Your task to perform on an android device: set the stopwatch Image 0: 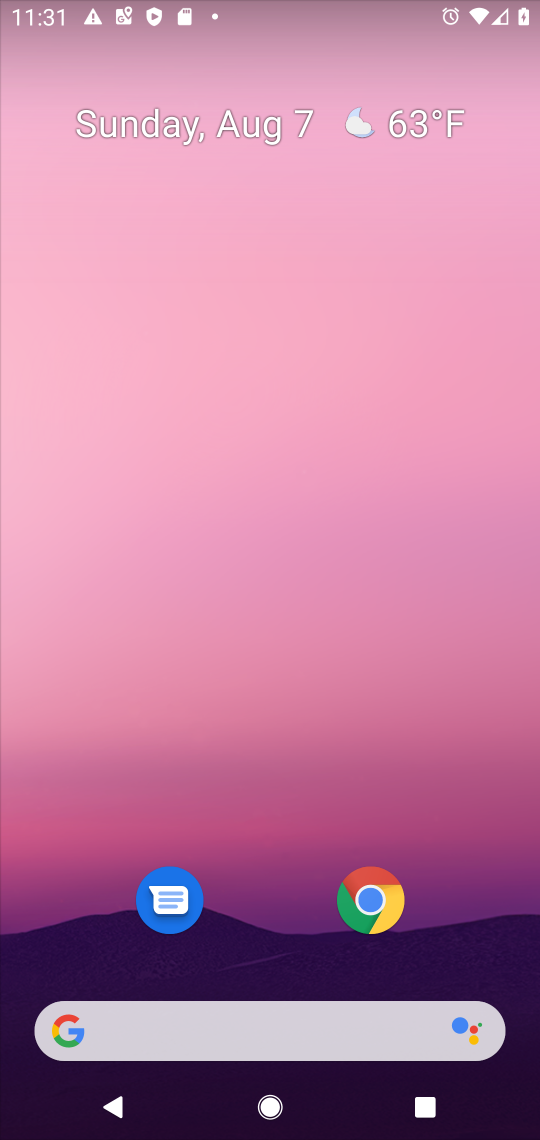
Step 0: press home button
Your task to perform on an android device: set the stopwatch Image 1: 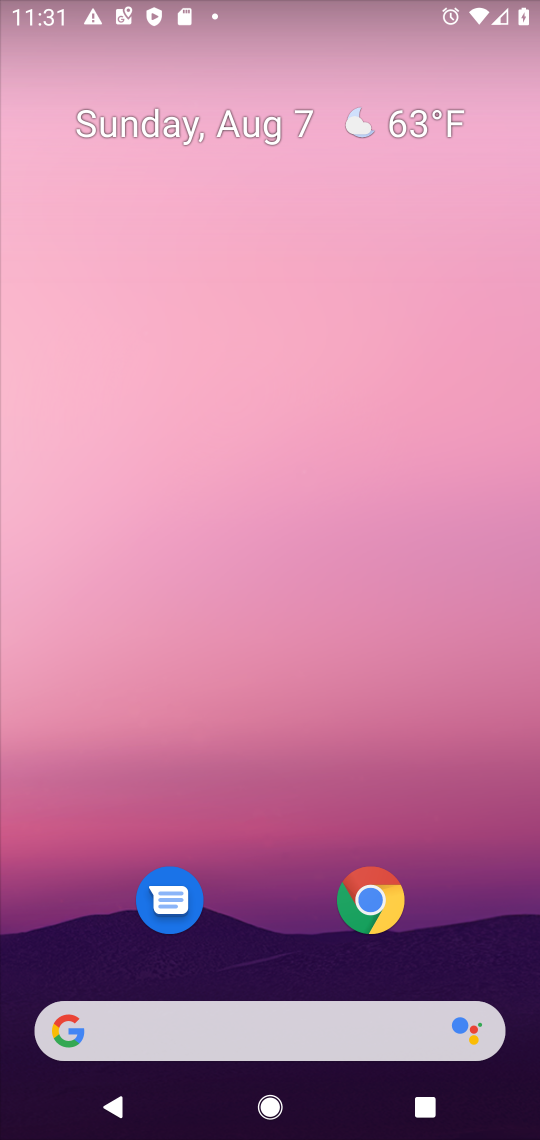
Step 1: drag from (298, 941) to (310, 4)
Your task to perform on an android device: set the stopwatch Image 2: 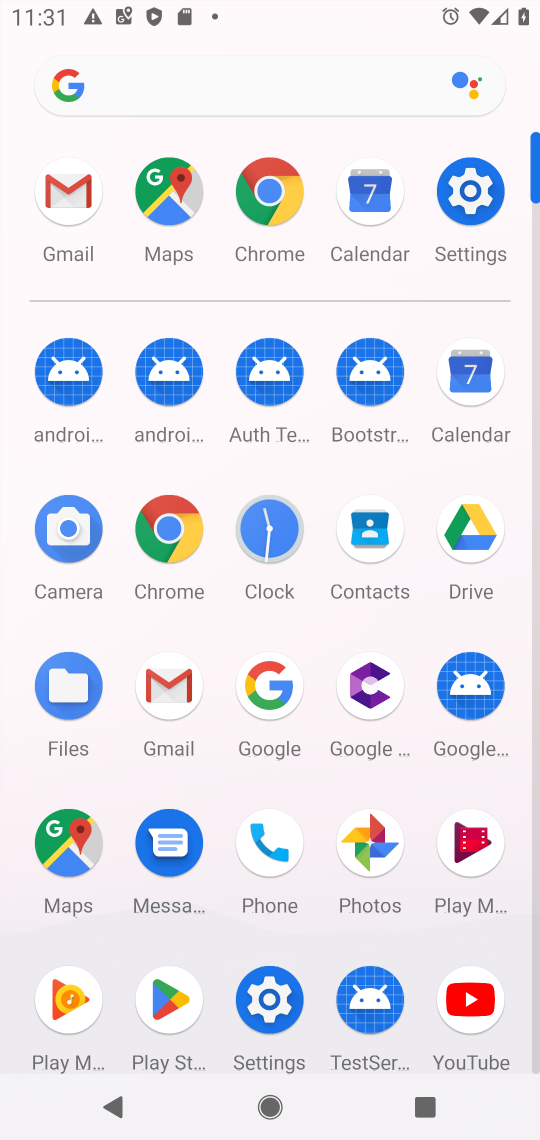
Step 2: click (269, 527)
Your task to perform on an android device: set the stopwatch Image 3: 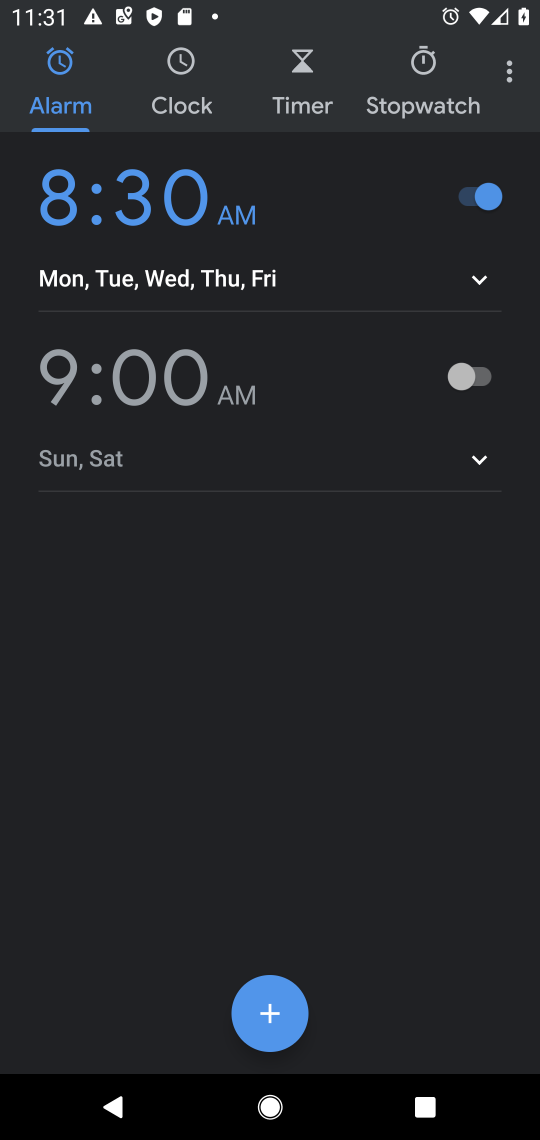
Step 3: click (424, 59)
Your task to perform on an android device: set the stopwatch Image 4: 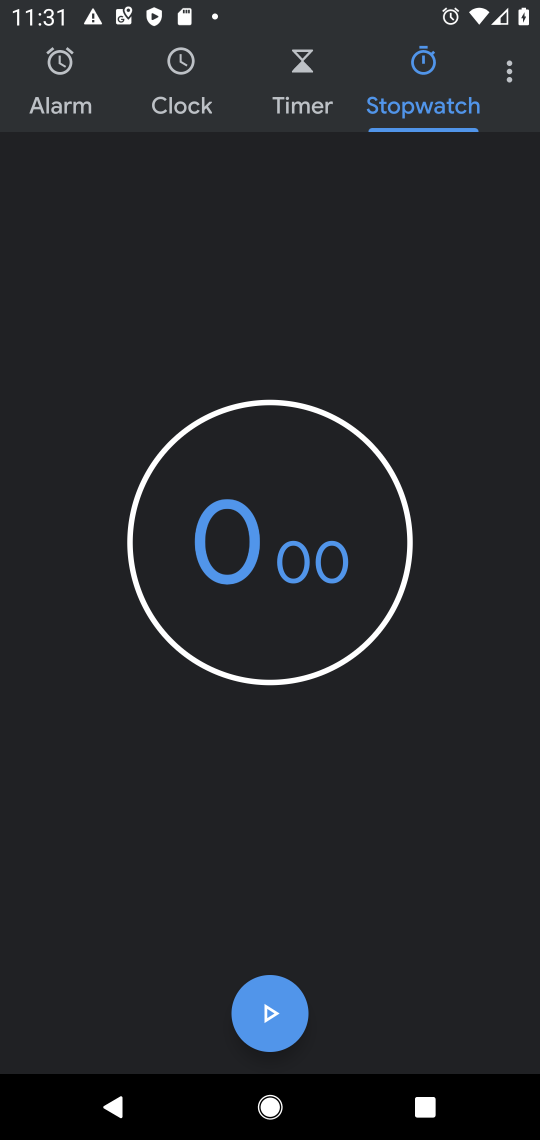
Step 4: click (268, 1004)
Your task to perform on an android device: set the stopwatch Image 5: 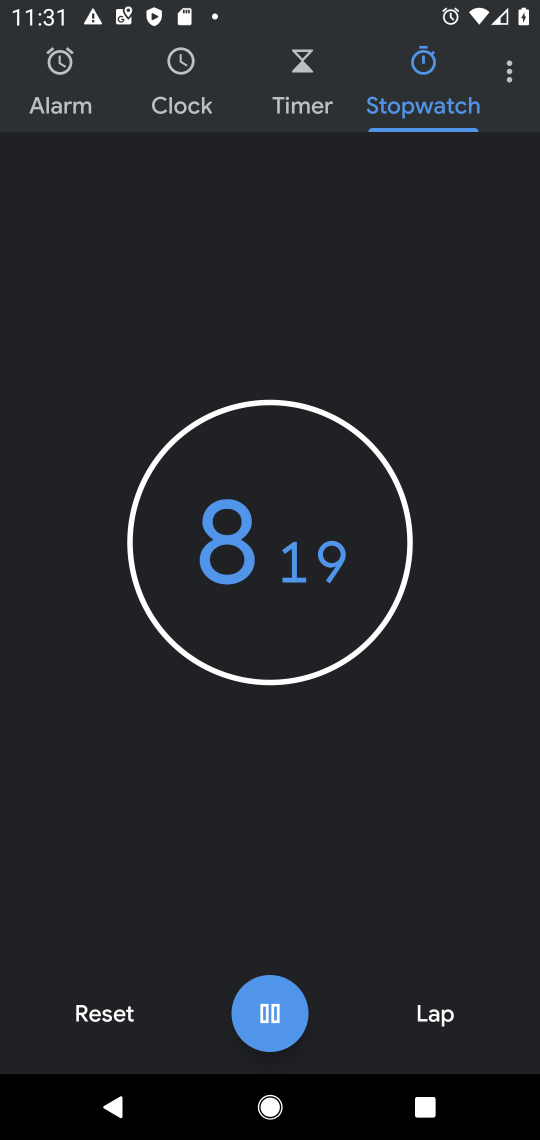
Step 5: task complete